Your task to perform on an android device: change the clock display to show seconds Image 0: 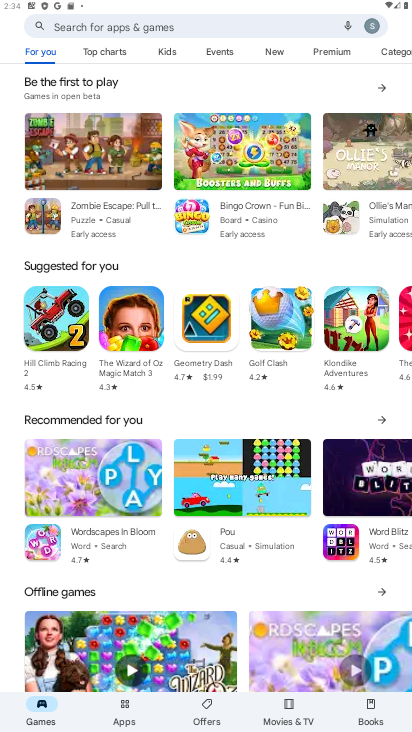
Step 0: press home button
Your task to perform on an android device: change the clock display to show seconds Image 1: 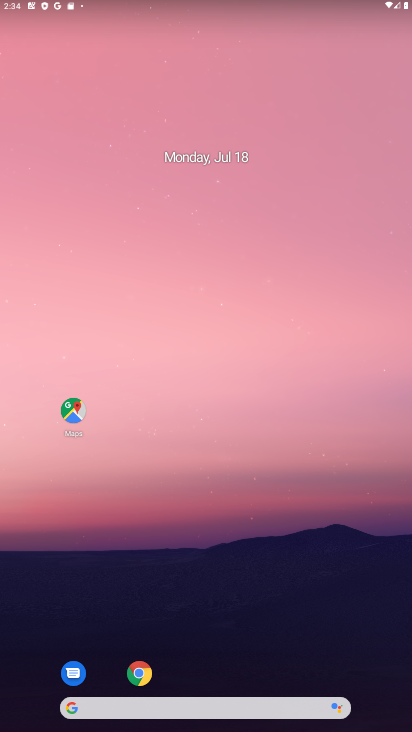
Step 1: drag from (182, 708) to (177, 121)
Your task to perform on an android device: change the clock display to show seconds Image 2: 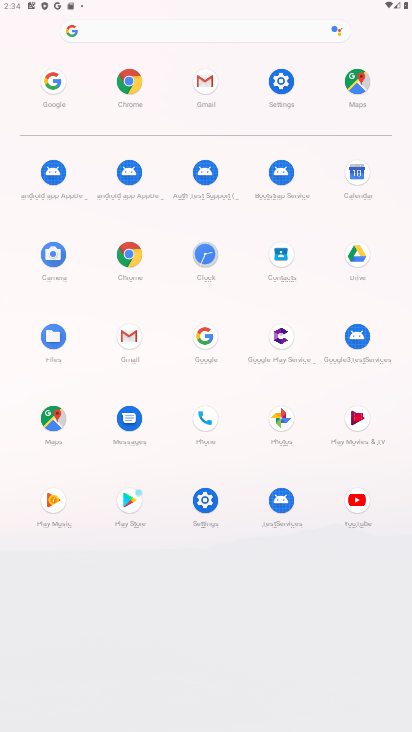
Step 2: click (207, 256)
Your task to perform on an android device: change the clock display to show seconds Image 3: 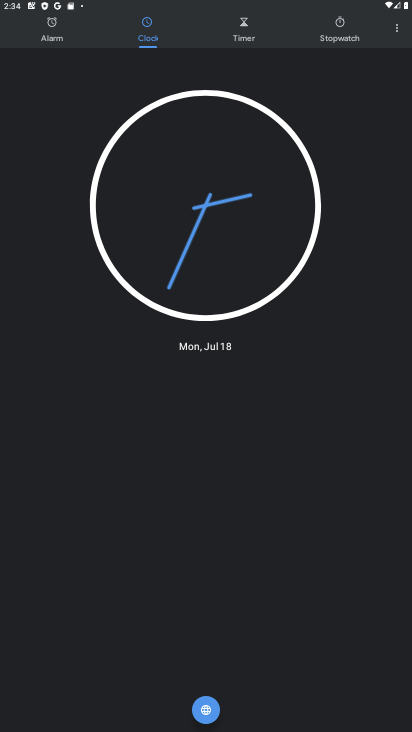
Step 3: click (400, 28)
Your task to perform on an android device: change the clock display to show seconds Image 4: 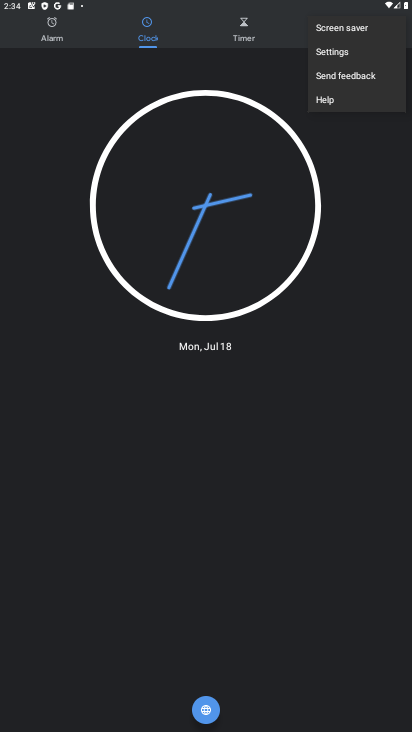
Step 4: click (345, 55)
Your task to perform on an android device: change the clock display to show seconds Image 5: 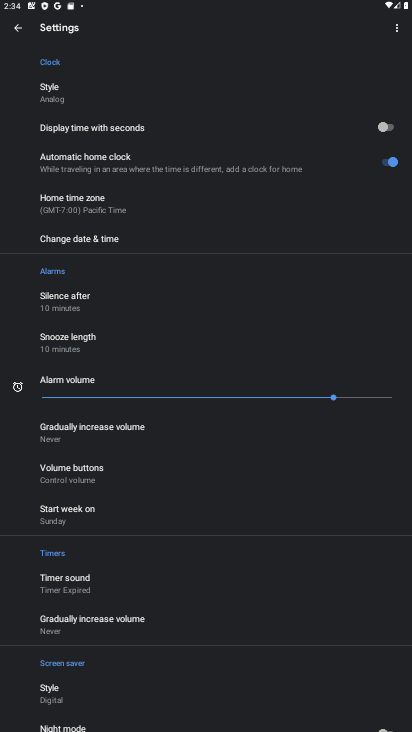
Step 5: click (383, 130)
Your task to perform on an android device: change the clock display to show seconds Image 6: 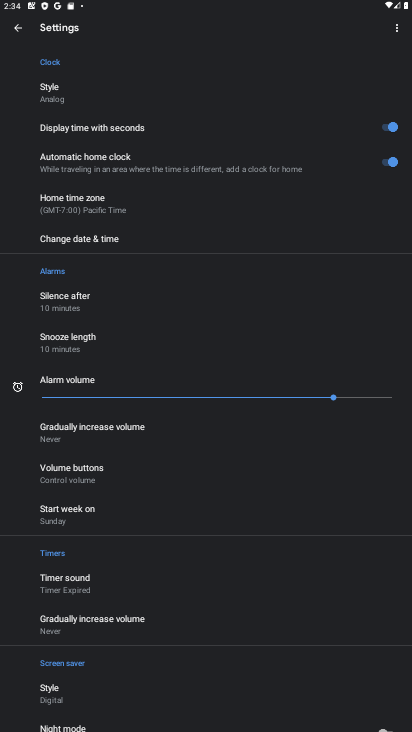
Step 6: task complete